Your task to perform on an android device: uninstall "Nova Launcher" Image 0: 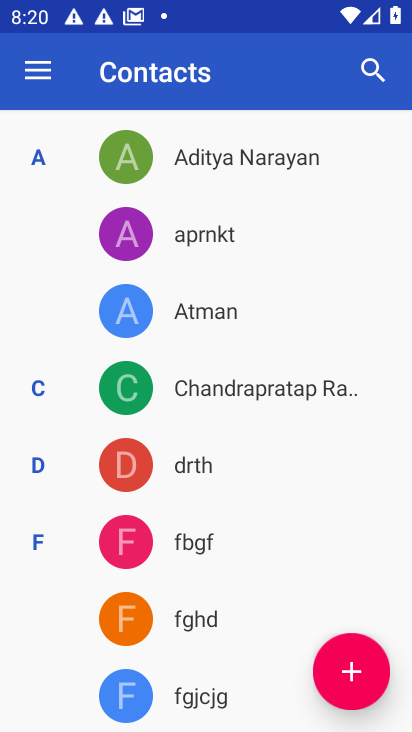
Step 0: press home button
Your task to perform on an android device: uninstall "Nova Launcher" Image 1: 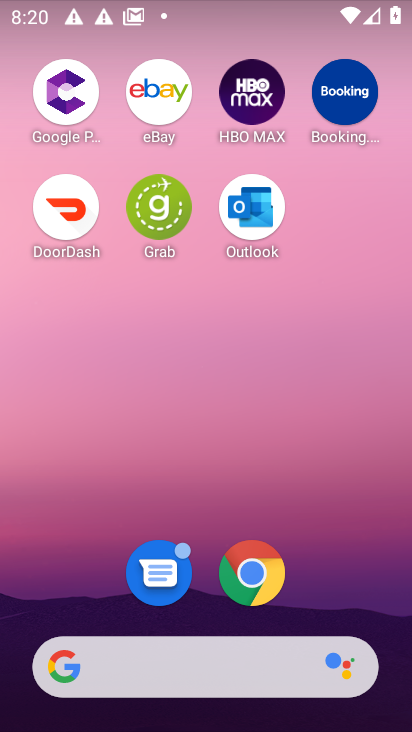
Step 1: drag from (102, 580) to (23, 42)
Your task to perform on an android device: uninstall "Nova Launcher" Image 2: 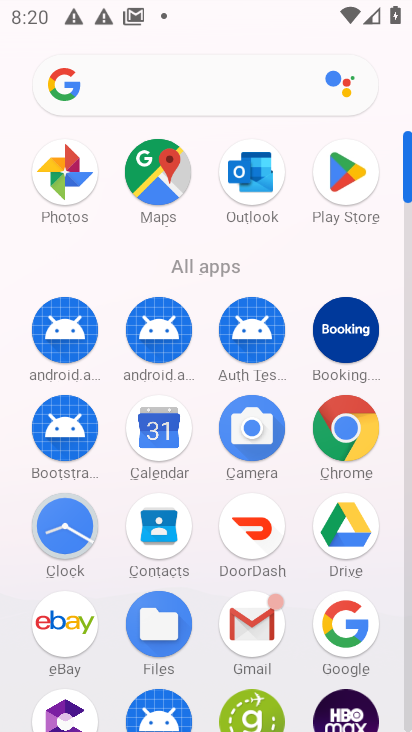
Step 2: click (343, 188)
Your task to perform on an android device: uninstall "Nova Launcher" Image 3: 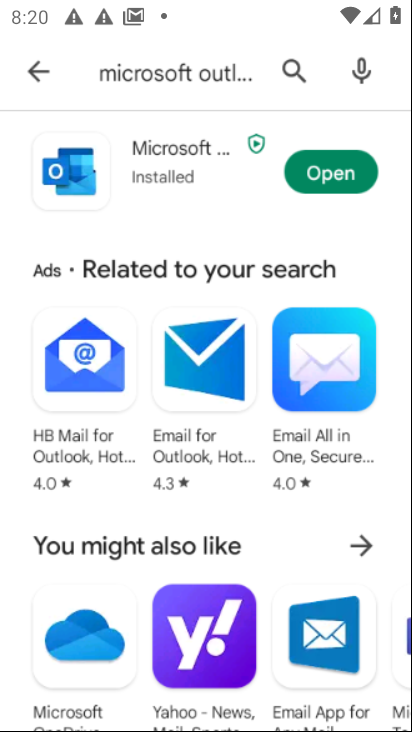
Step 3: click (177, 69)
Your task to perform on an android device: uninstall "Nova Launcher" Image 4: 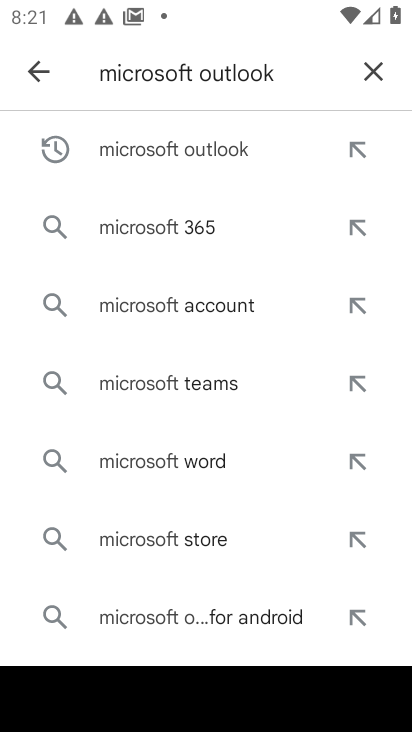
Step 4: click (360, 72)
Your task to perform on an android device: uninstall "Nova Launcher" Image 5: 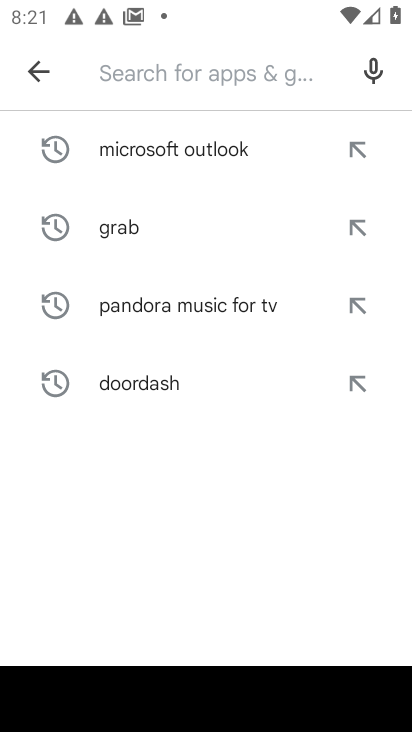
Step 5: type "nova launcher"
Your task to perform on an android device: uninstall "Nova Launcher" Image 6: 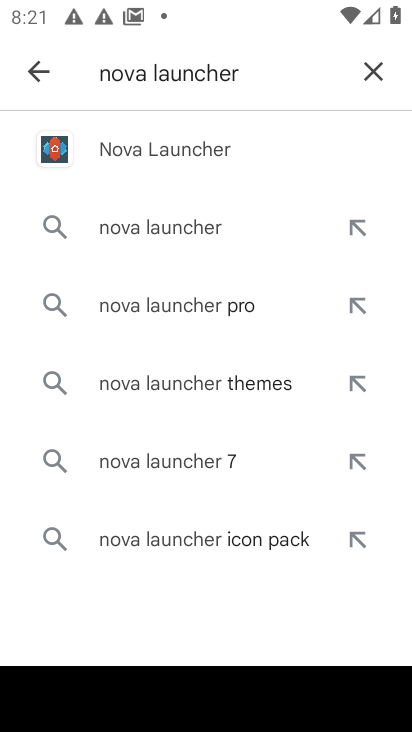
Step 6: click (184, 147)
Your task to perform on an android device: uninstall "Nova Launcher" Image 7: 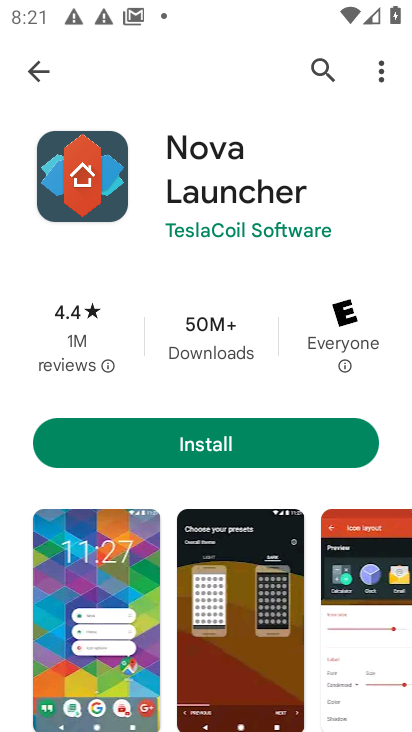
Step 7: task complete